Your task to perform on an android device: Clear the cart on newegg.com. Add "macbook air" to the cart on newegg.com Image 0: 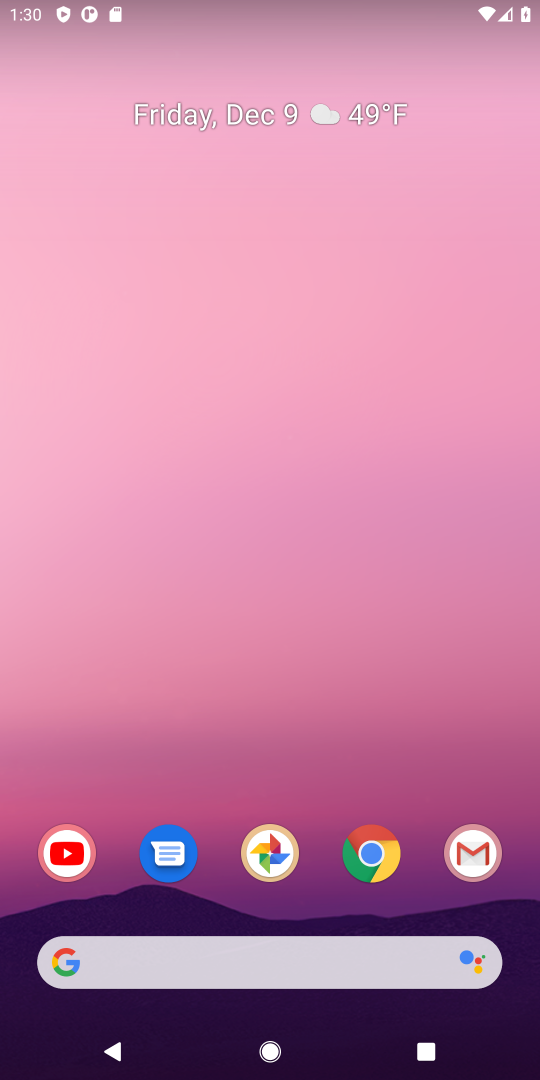
Step 0: drag from (359, 910) to (359, 664)
Your task to perform on an android device: Clear the cart on newegg.com. Add "macbook air" to the cart on newegg.com Image 1: 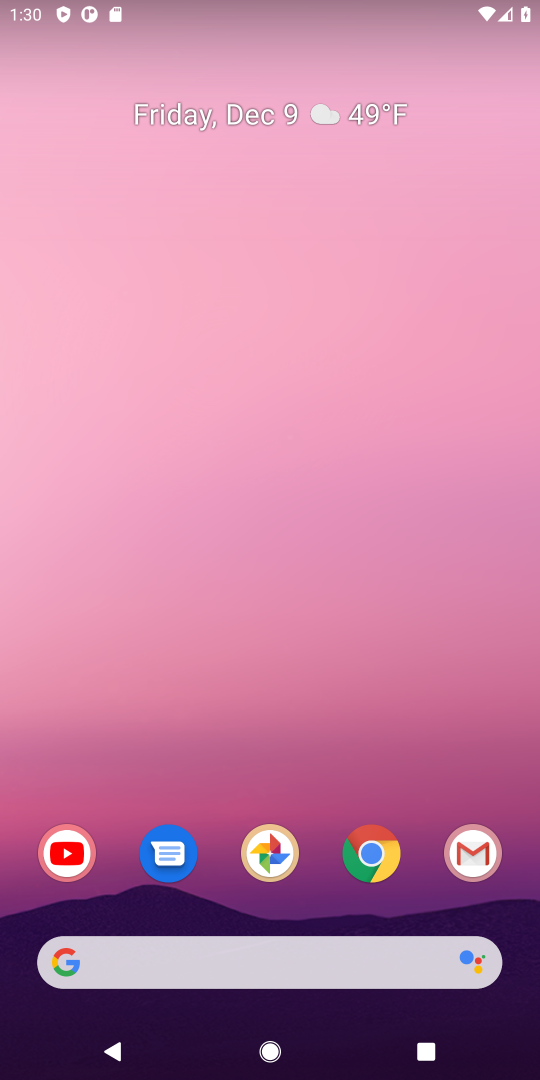
Step 1: drag from (338, 937) to (392, 273)
Your task to perform on an android device: Clear the cart on newegg.com. Add "macbook air" to the cart on newegg.com Image 2: 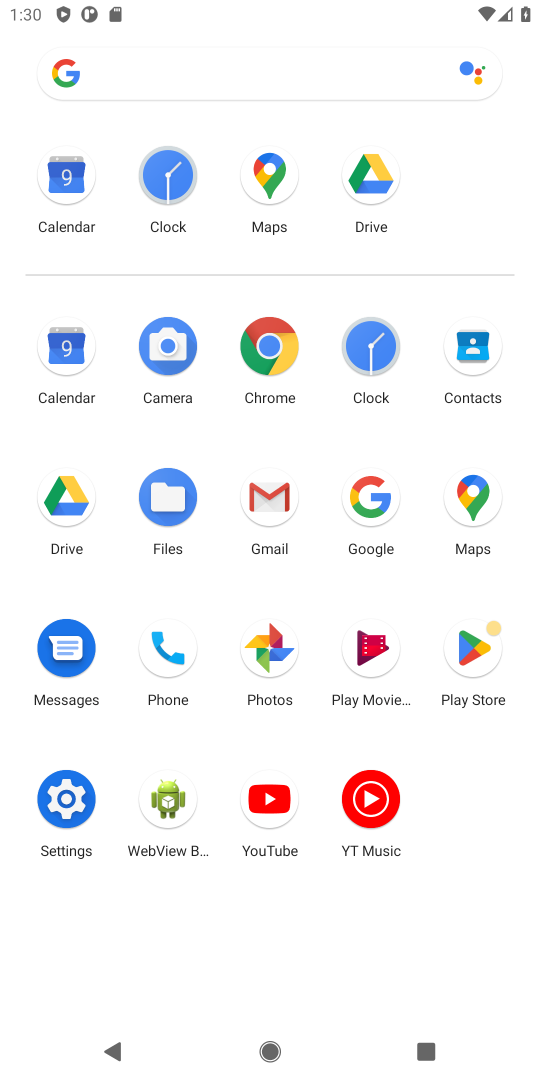
Step 2: click (378, 497)
Your task to perform on an android device: Clear the cart on newegg.com. Add "macbook air" to the cart on newegg.com Image 3: 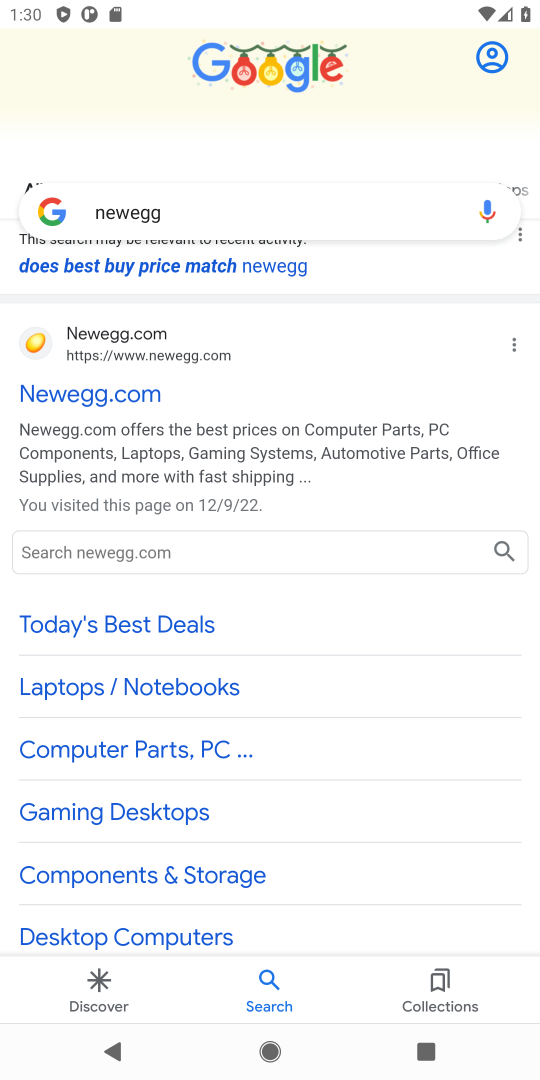
Step 3: click (170, 210)
Your task to perform on an android device: Clear the cart on newegg.com. Add "macbook air" to the cart on newegg.com Image 4: 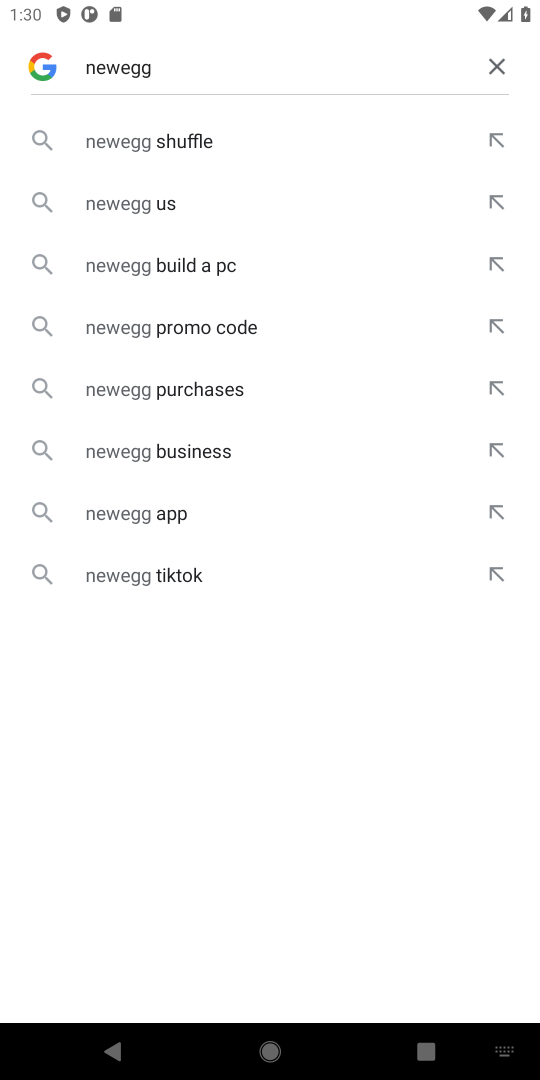
Step 4: click (497, 58)
Your task to perform on an android device: Clear the cart on newegg.com. Add "macbook air" to the cart on newegg.com Image 5: 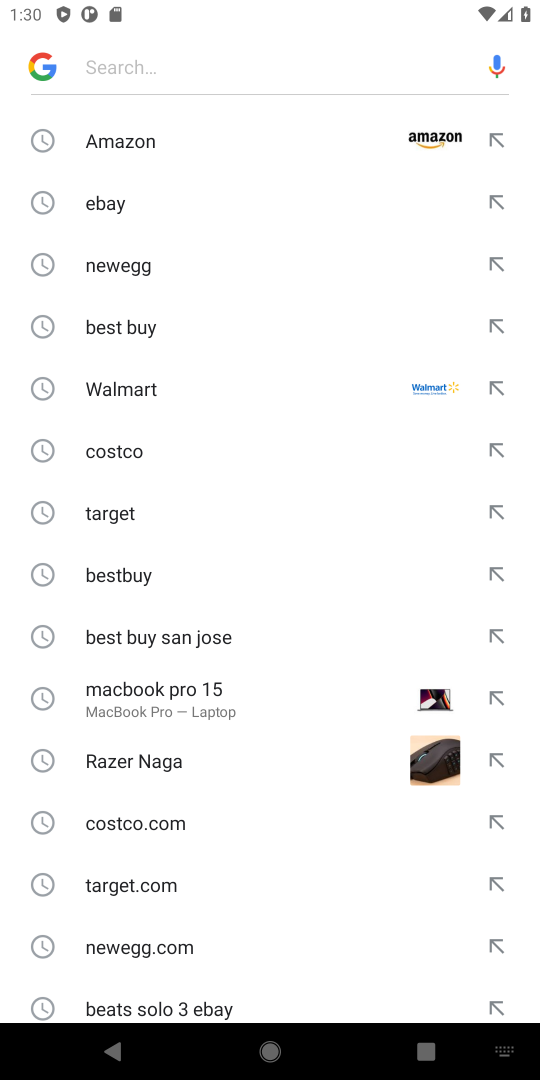
Step 5: click (133, 272)
Your task to perform on an android device: Clear the cart on newegg.com. Add "macbook air" to the cart on newegg.com Image 6: 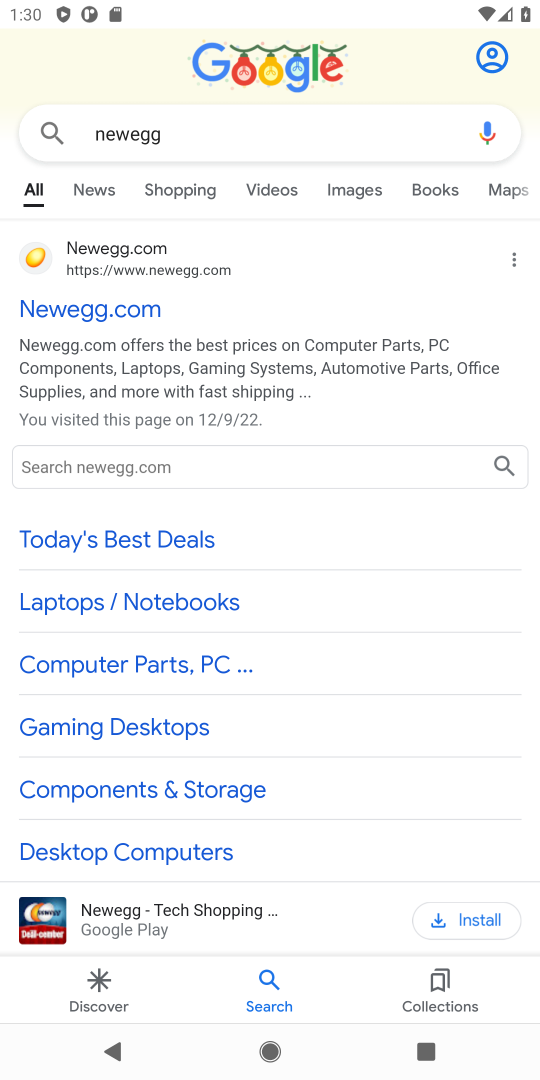
Step 6: click (114, 297)
Your task to perform on an android device: Clear the cart on newegg.com. Add "macbook air" to the cart on newegg.com Image 7: 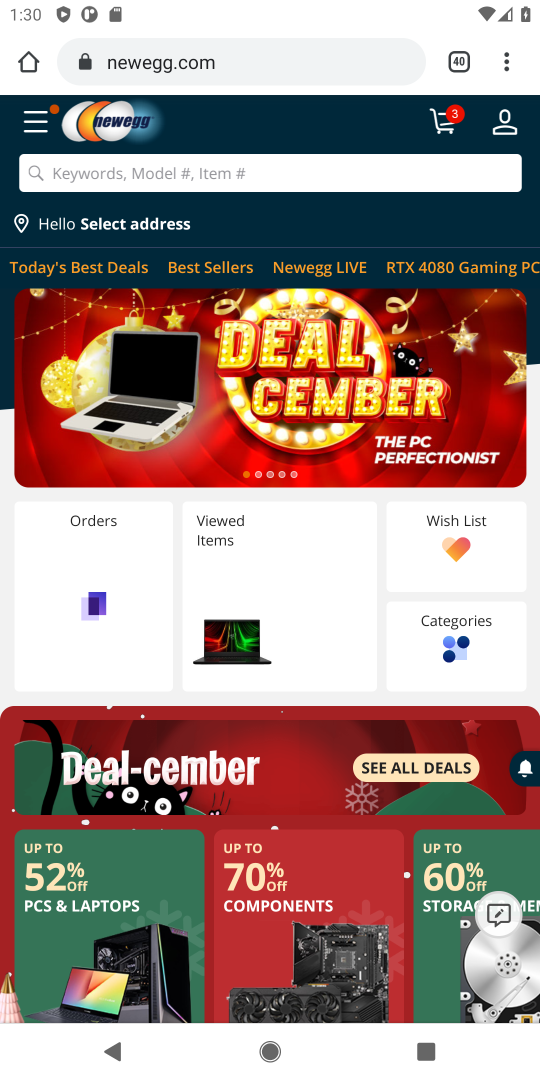
Step 7: click (443, 114)
Your task to perform on an android device: Clear the cart on newegg.com. Add "macbook air" to the cart on newegg.com Image 8: 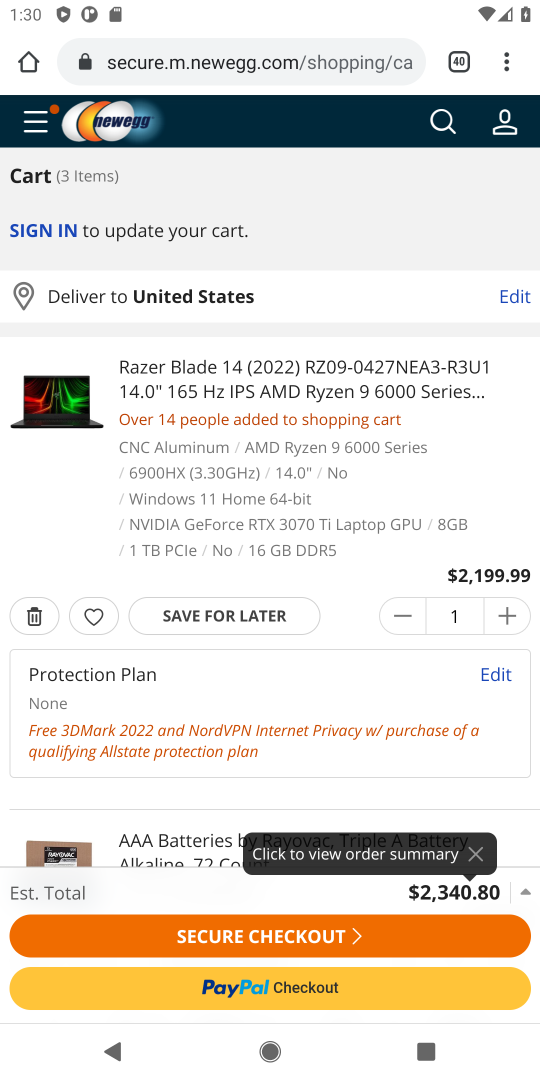
Step 8: click (36, 613)
Your task to perform on an android device: Clear the cart on newegg.com. Add "macbook air" to the cart on newegg.com Image 9: 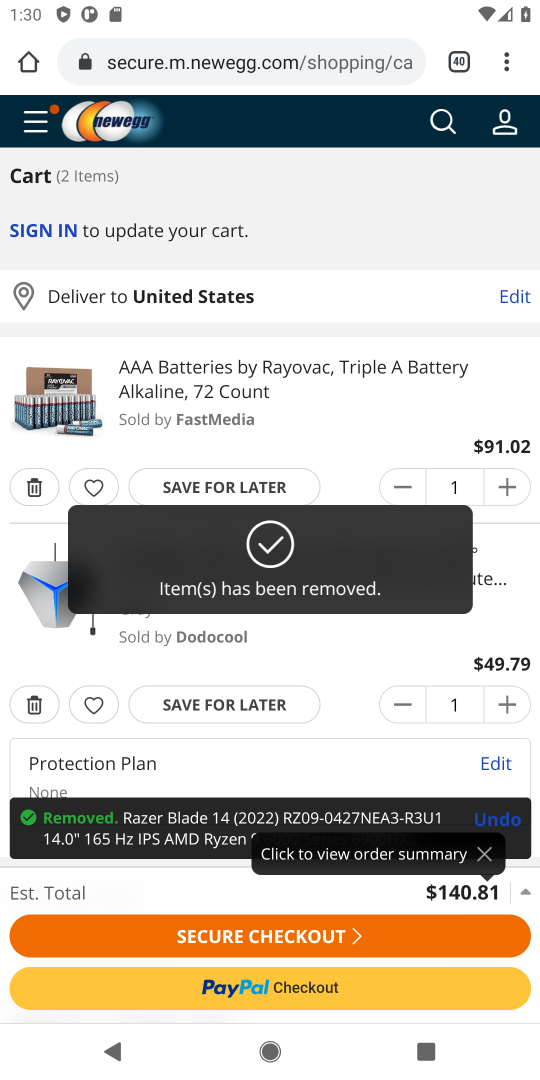
Step 9: click (30, 482)
Your task to perform on an android device: Clear the cart on newegg.com. Add "macbook air" to the cart on newegg.com Image 10: 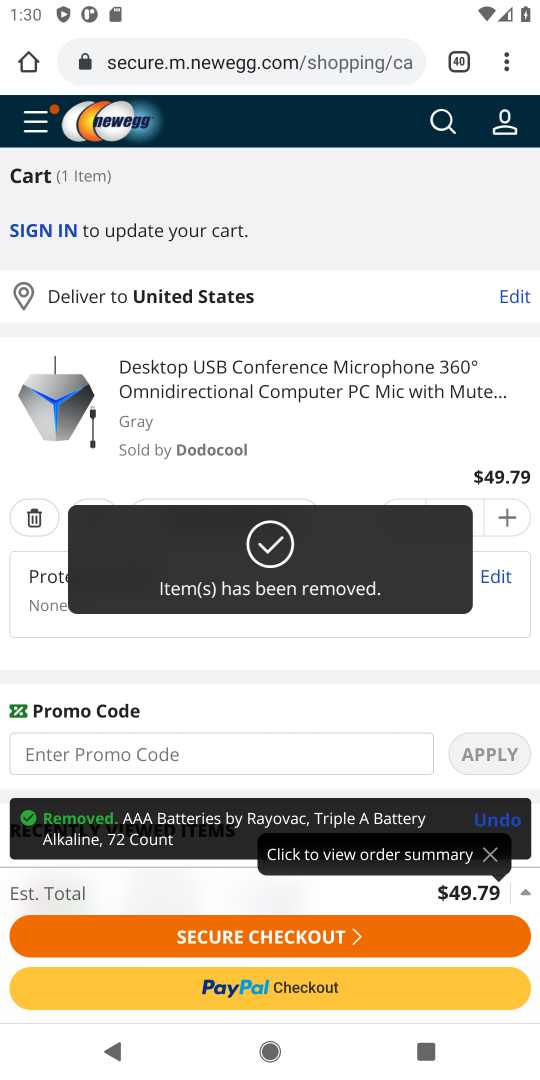
Step 10: click (36, 515)
Your task to perform on an android device: Clear the cart on newegg.com. Add "macbook air" to the cart on newegg.com Image 11: 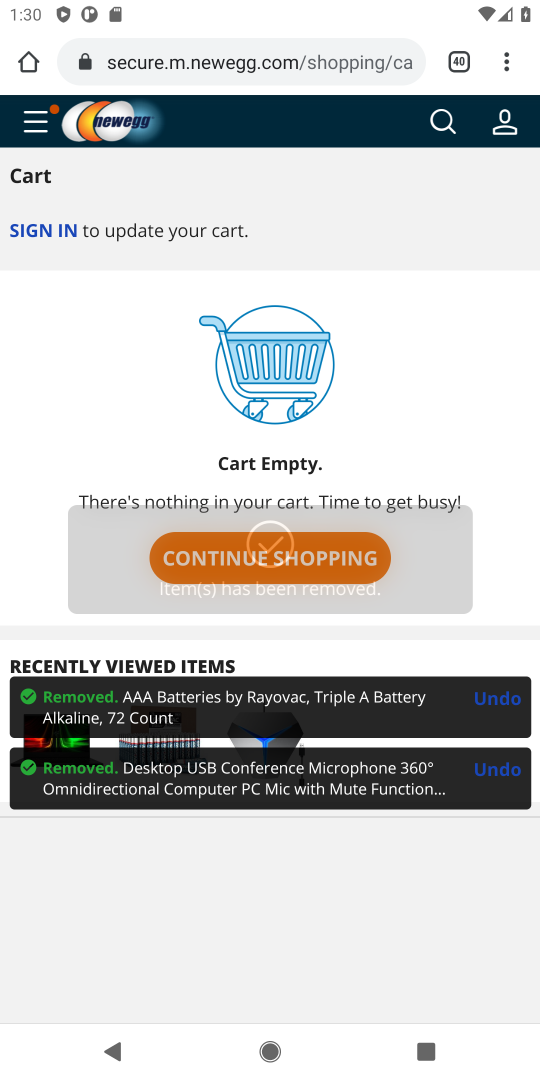
Step 11: click (440, 108)
Your task to perform on an android device: Clear the cart on newegg.com. Add "macbook air" to the cart on newegg.com Image 12: 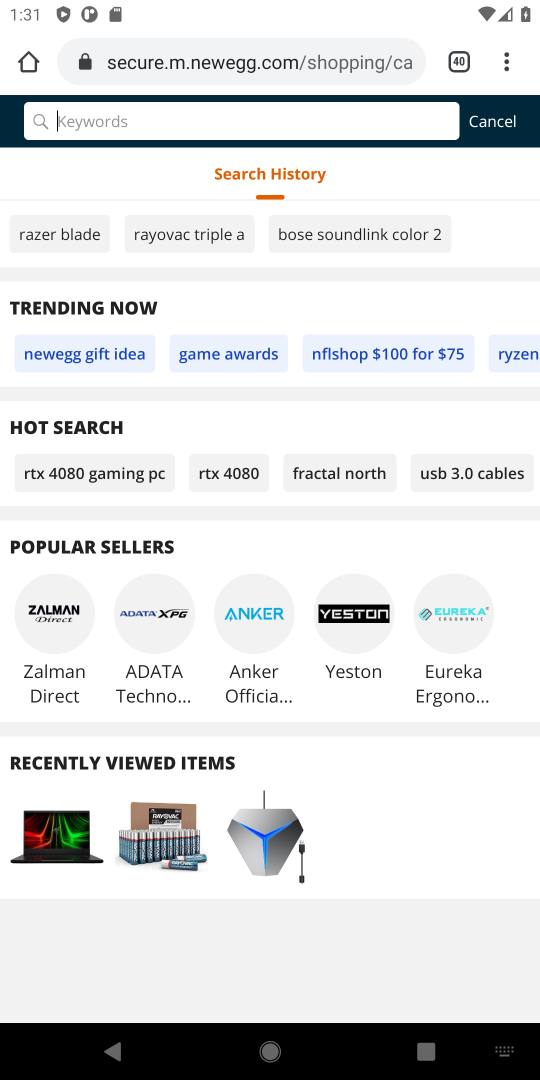
Step 12: type "macbook air"
Your task to perform on an android device: Clear the cart on newegg.com. Add "macbook air" to the cart on newegg.com Image 13: 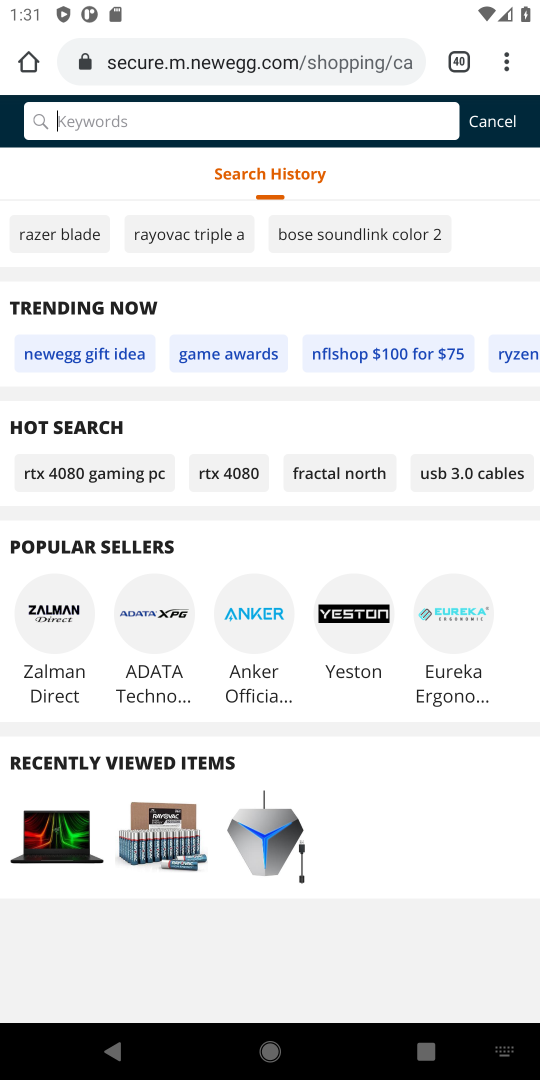
Step 13: click (37, 118)
Your task to perform on an android device: Clear the cart on newegg.com. Add "macbook air" to the cart on newegg.com Image 14: 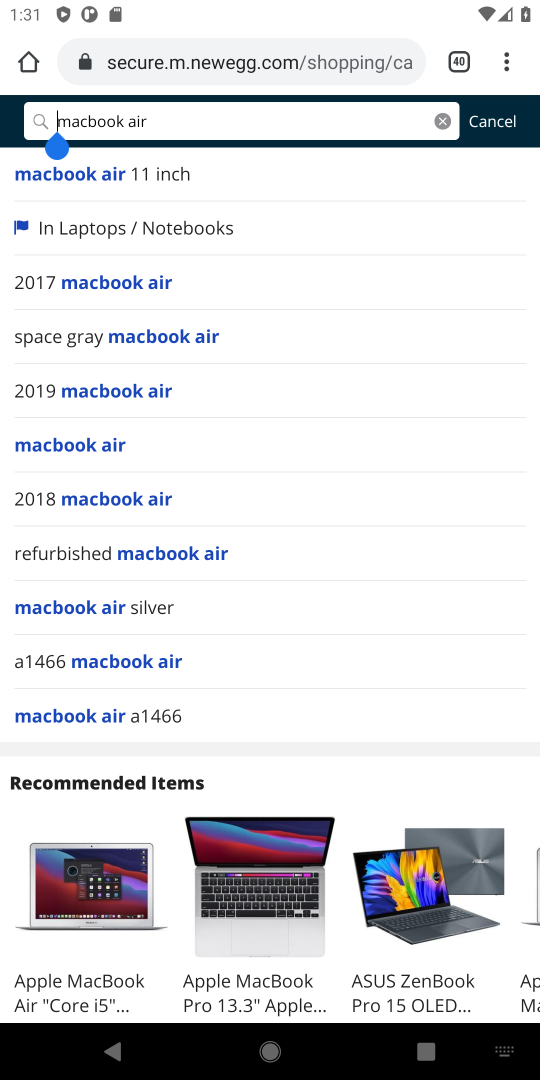
Step 14: click (98, 440)
Your task to perform on an android device: Clear the cart on newegg.com. Add "macbook air" to the cart on newegg.com Image 15: 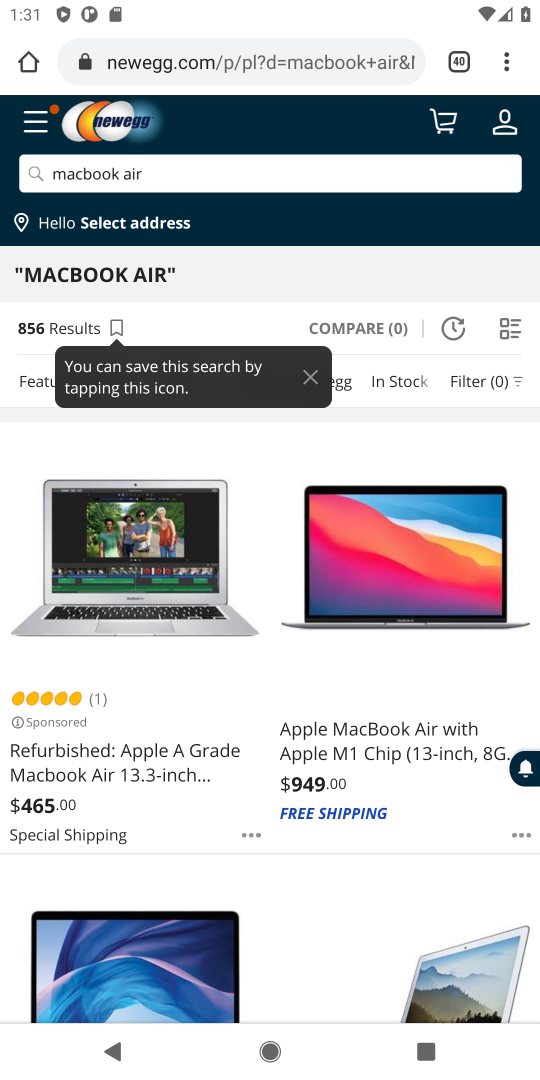
Step 15: click (126, 755)
Your task to perform on an android device: Clear the cart on newegg.com. Add "macbook air" to the cart on newegg.com Image 16: 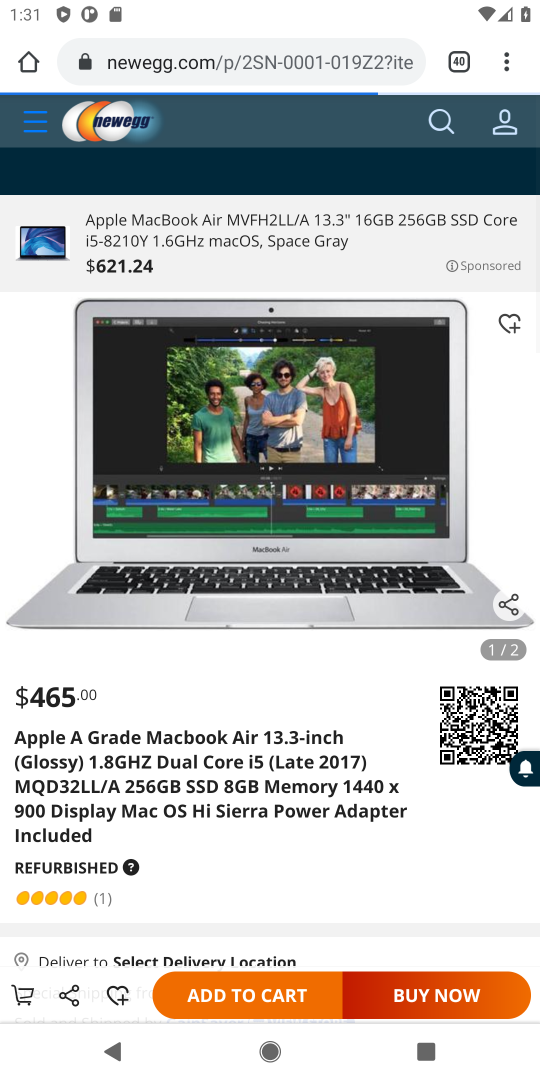
Step 16: click (261, 997)
Your task to perform on an android device: Clear the cart on newegg.com. Add "macbook air" to the cart on newegg.com Image 17: 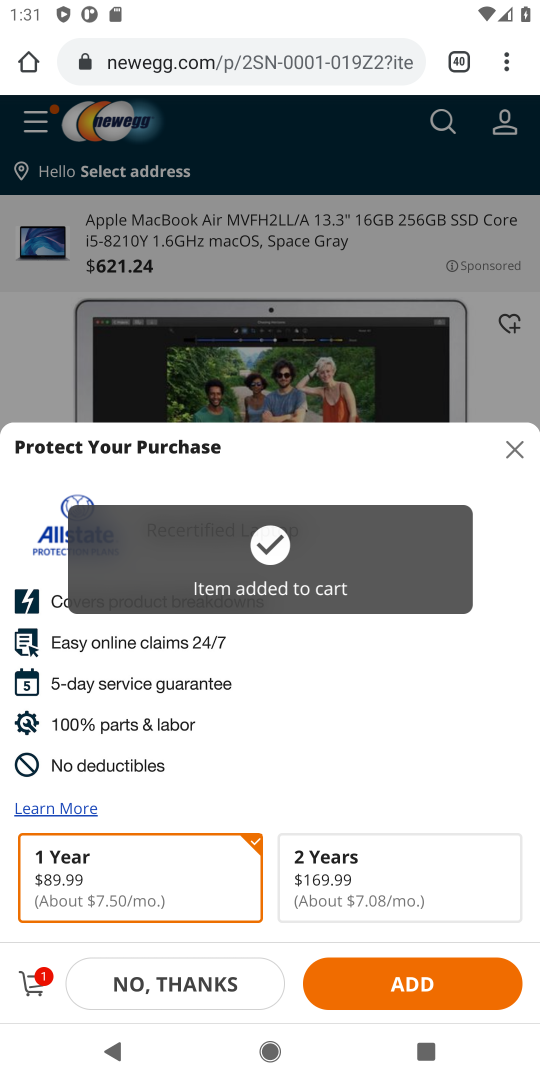
Step 17: task complete